Your task to perform on an android device: Open Google Chrome and click the shortcut for Amazon.com Image 0: 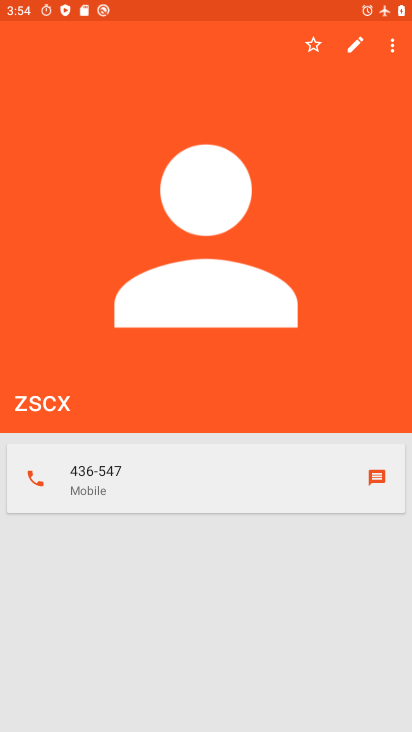
Step 0: press home button
Your task to perform on an android device: Open Google Chrome and click the shortcut for Amazon.com Image 1: 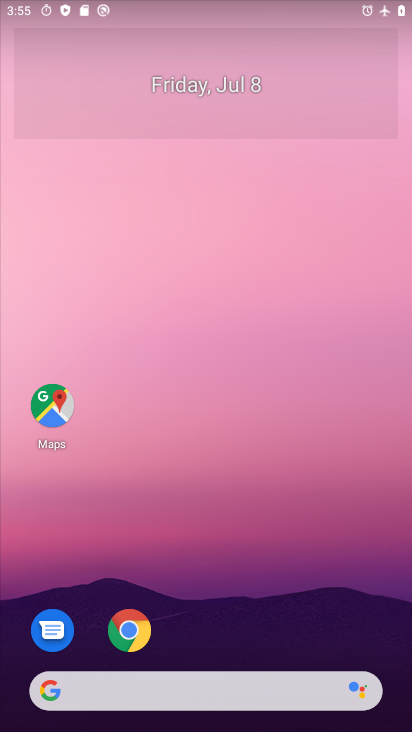
Step 1: click (298, 687)
Your task to perform on an android device: Open Google Chrome and click the shortcut for Amazon.com Image 2: 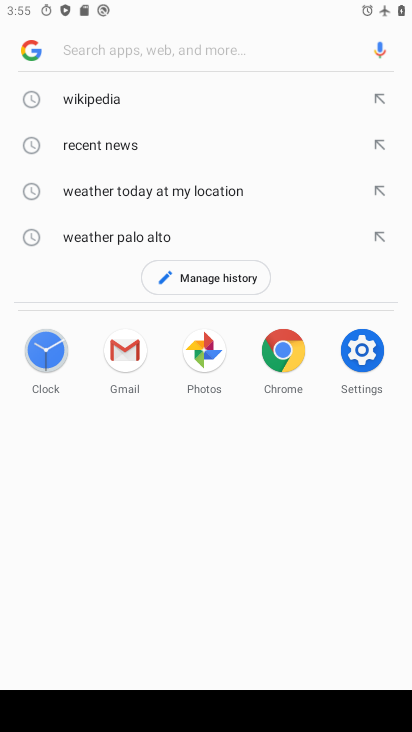
Step 2: type "amazon.com"
Your task to perform on an android device: Open Google Chrome and click the shortcut for Amazon.com Image 3: 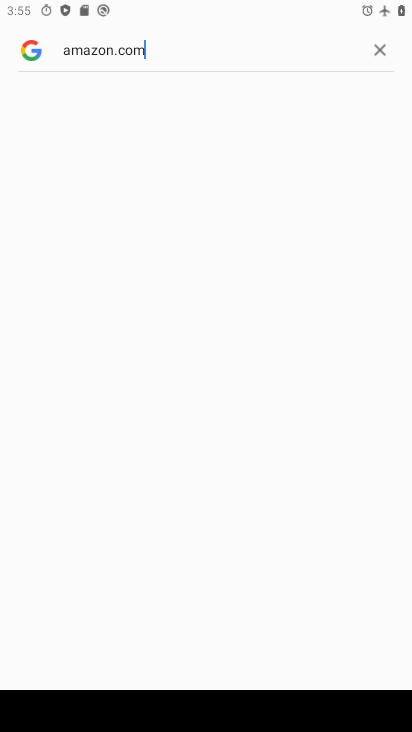
Step 3: press enter
Your task to perform on an android device: Open Google Chrome and click the shortcut for Amazon.com Image 4: 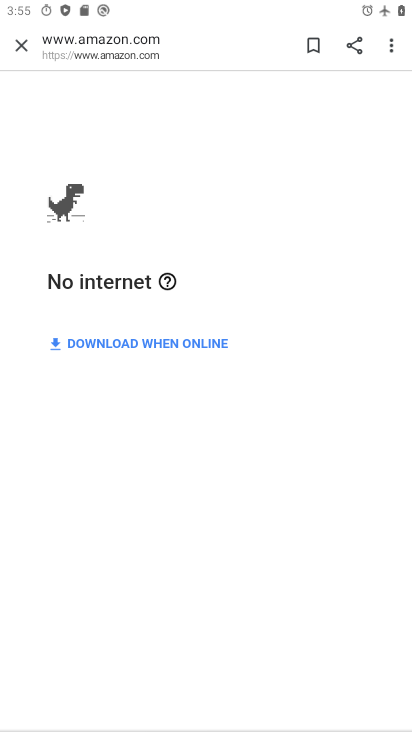
Step 4: task complete